Your task to perform on an android device: Is it going to rain today? Image 0: 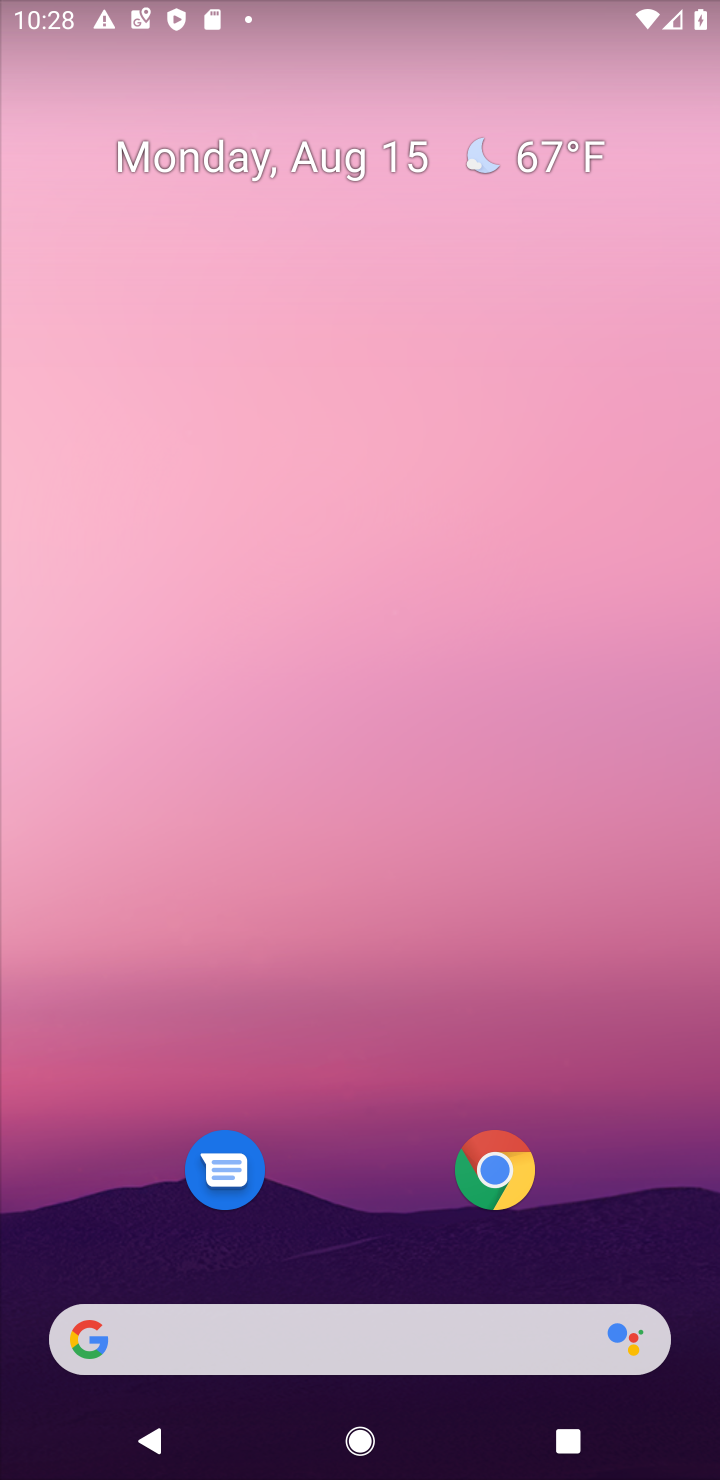
Step 0: drag from (349, 1163) to (410, 232)
Your task to perform on an android device: Is it going to rain today? Image 1: 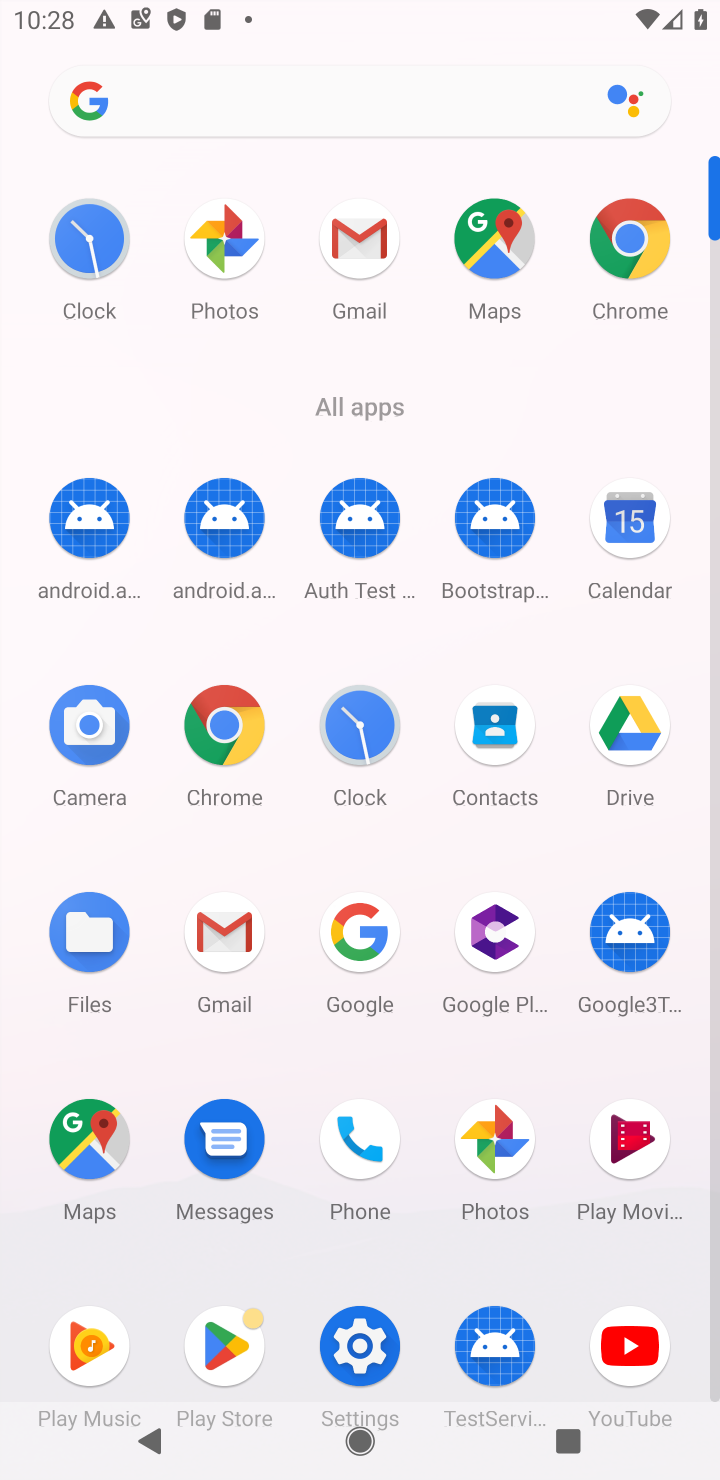
Step 1: press home button
Your task to perform on an android device: Is it going to rain today? Image 2: 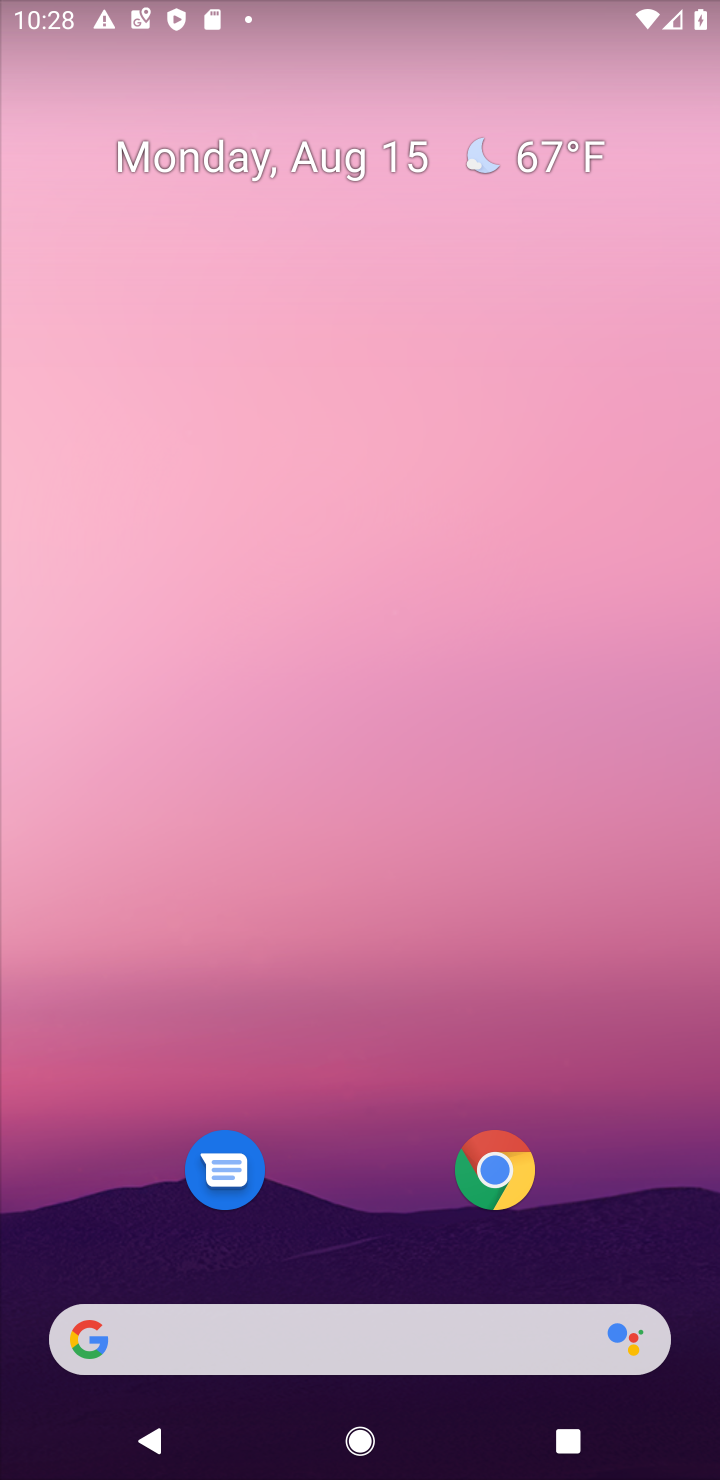
Step 2: click (557, 150)
Your task to perform on an android device: Is it going to rain today? Image 3: 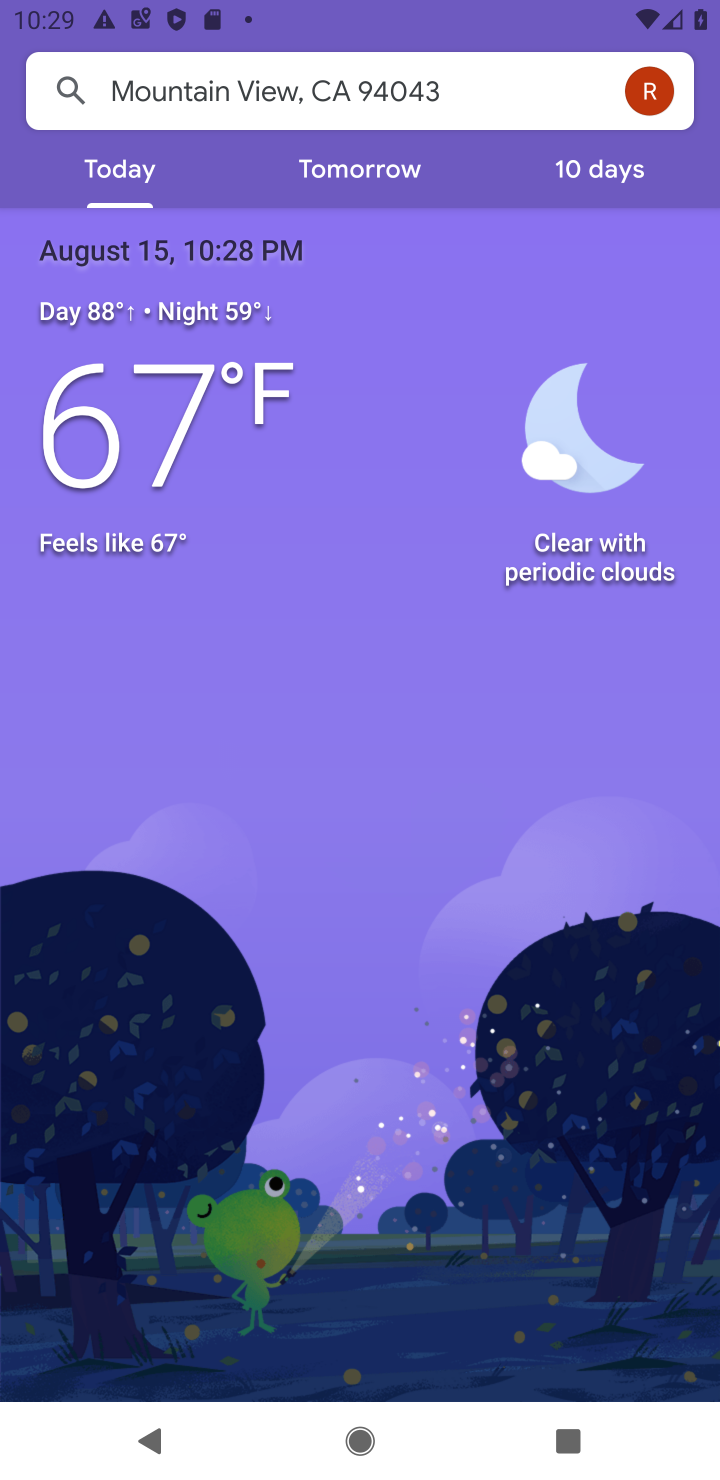
Step 3: task complete